Your task to perform on an android device: open app "Walmart Shopping & Grocery" (install if not already installed) and enter user name: "Hans@icloud.com" and password: "executing" Image 0: 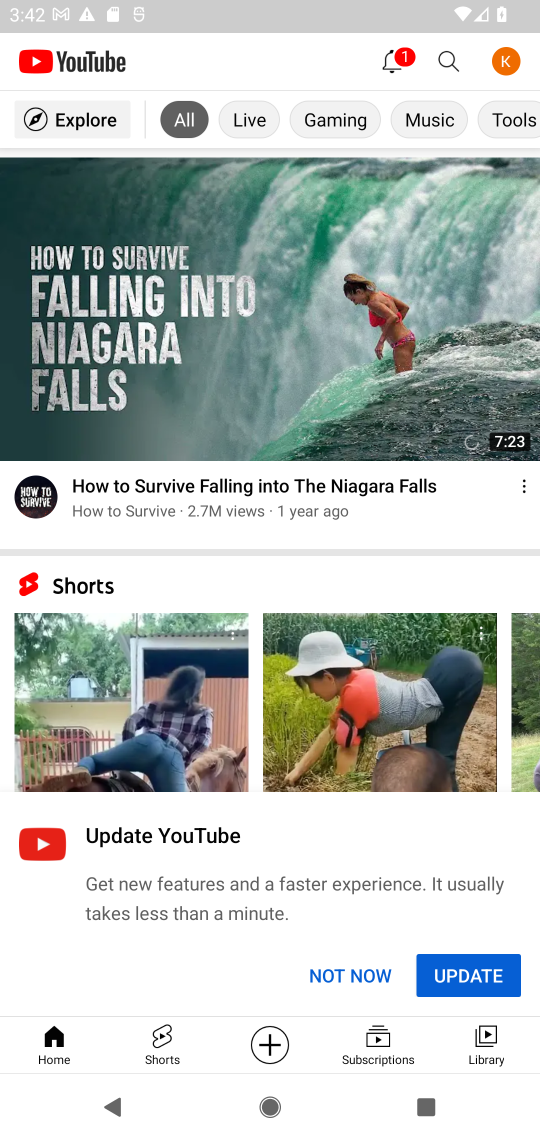
Step 0: press home button
Your task to perform on an android device: open app "Walmart Shopping & Grocery" (install if not already installed) and enter user name: "Hans@icloud.com" and password: "executing" Image 1: 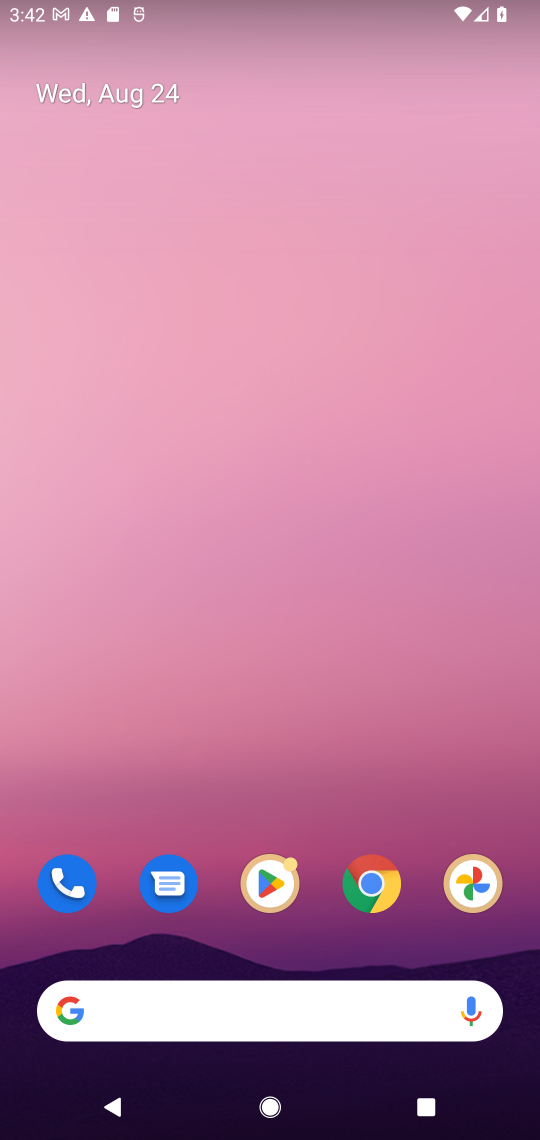
Step 1: drag from (201, 987) to (201, 481)
Your task to perform on an android device: open app "Walmart Shopping & Grocery" (install if not already installed) and enter user name: "Hans@icloud.com" and password: "executing" Image 2: 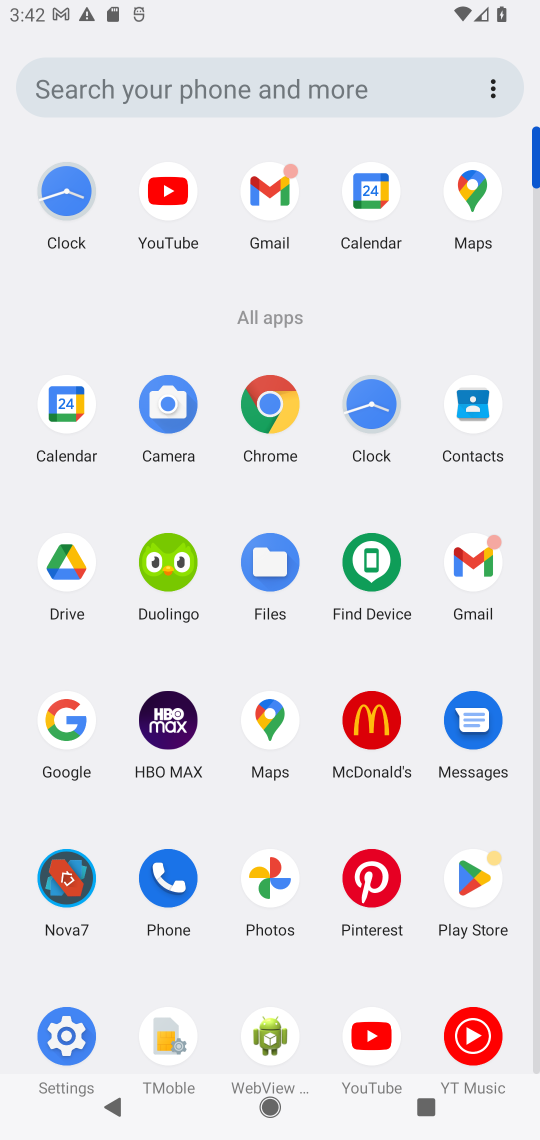
Step 2: click (482, 881)
Your task to perform on an android device: open app "Walmart Shopping & Grocery" (install if not already installed) and enter user name: "Hans@icloud.com" and password: "executing" Image 3: 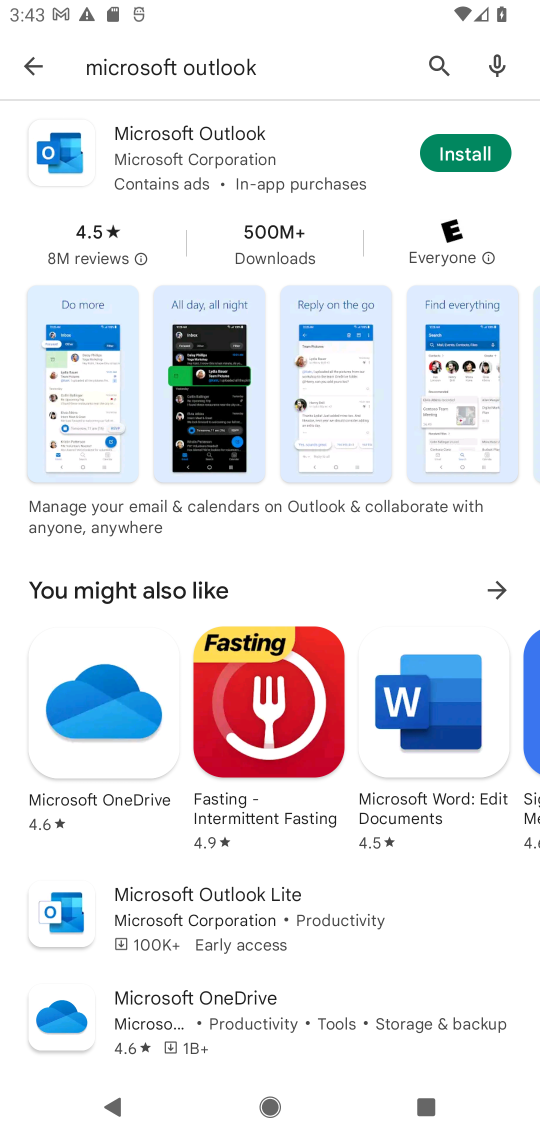
Step 3: click (437, 59)
Your task to perform on an android device: open app "Walmart Shopping & Grocery" (install if not already installed) and enter user name: "Hans@icloud.com" and password: "executing" Image 4: 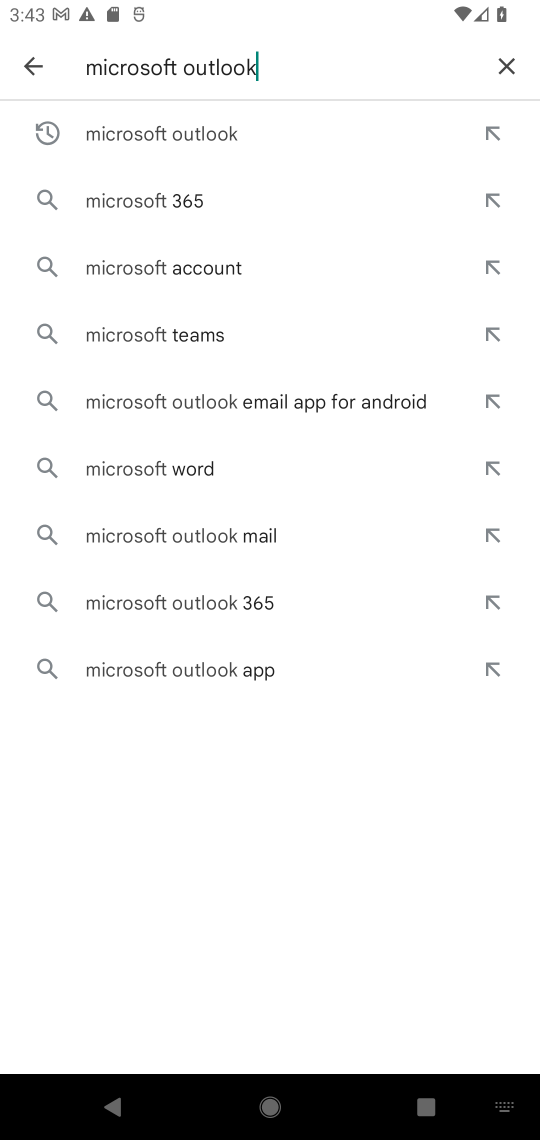
Step 4: click (509, 67)
Your task to perform on an android device: open app "Walmart Shopping & Grocery" (install if not already installed) and enter user name: "Hans@icloud.com" and password: "executing" Image 5: 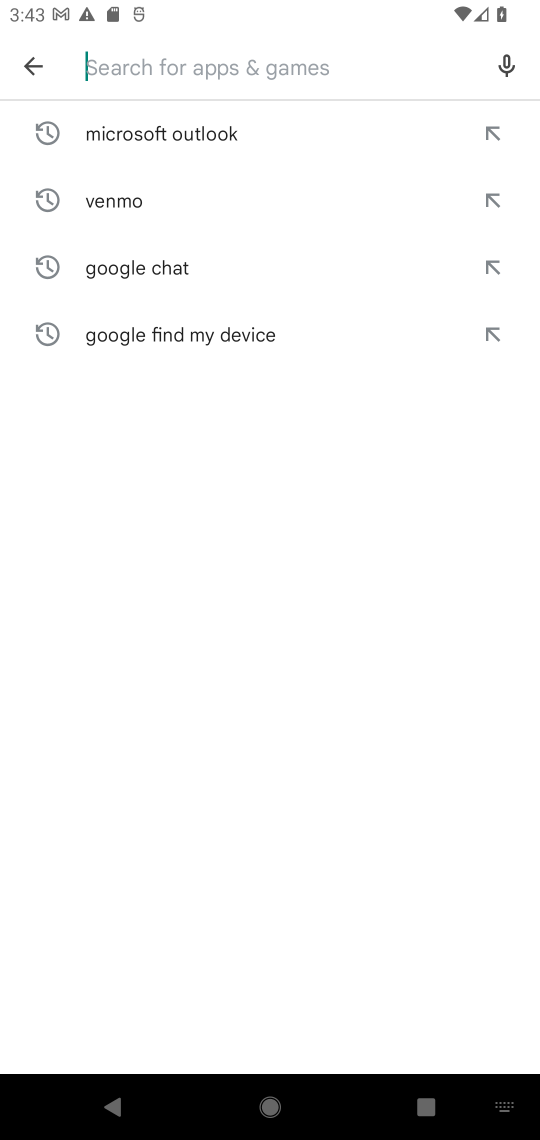
Step 5: type "Walmart Shopping & Grocery"
Your task to perform on an android device: open app "Walmart Shopping & Grocery" (install if not already installed) and enter user name: "Hans@icloud.com" and password: "executing" Image 6: 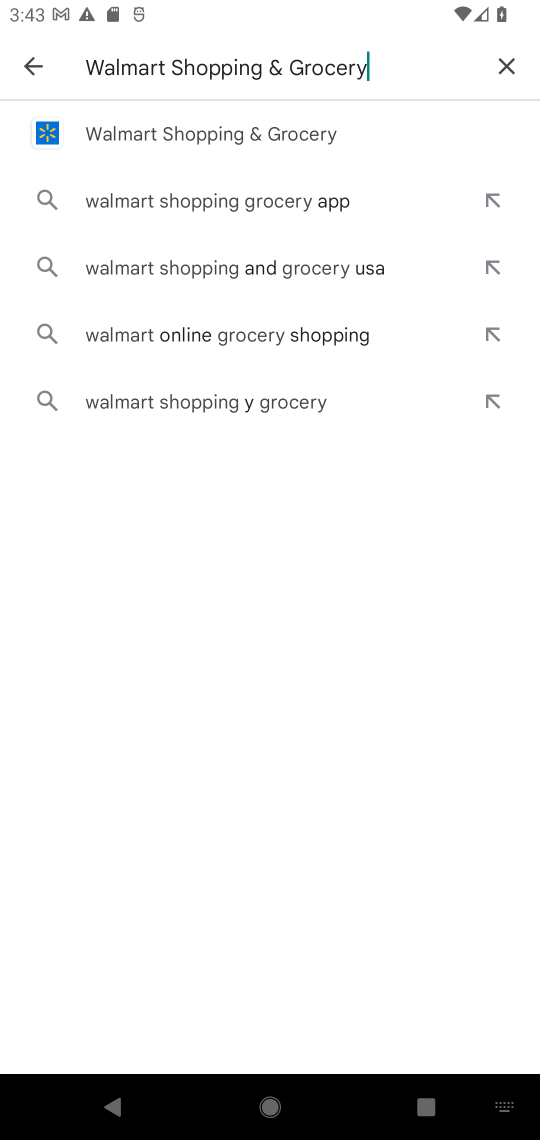
Step 6: click (123, 128)
Your task to perform on an android device: open app "Walmart Shopping & Grocery" (install if not already installed) and enter user name: "Hans@icloud.com" and password: "executing" Image 7: 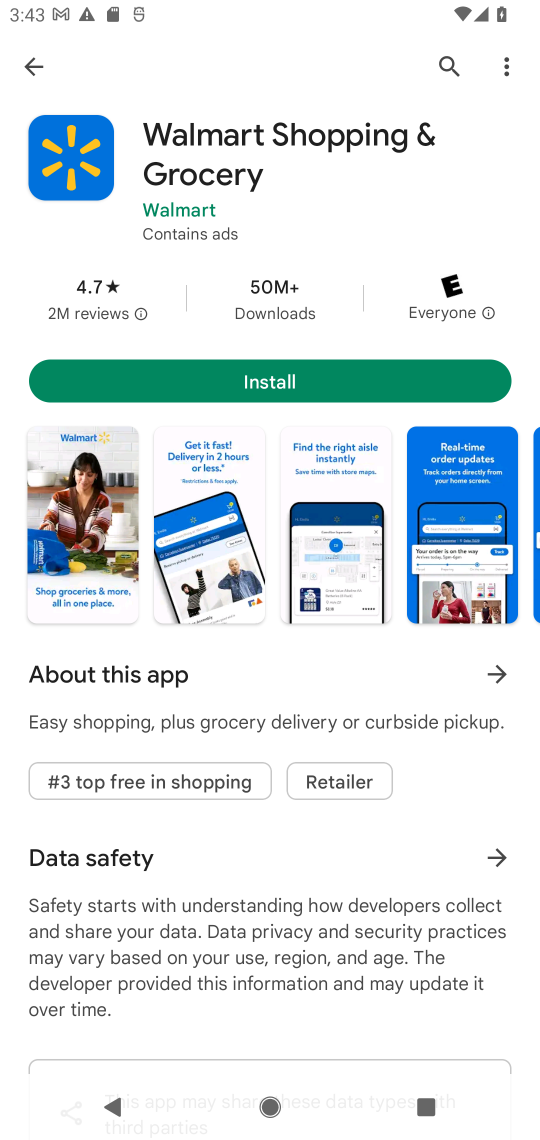
Step 7: click (369, 389)
Your task to perform on an android device: open app "Walmart Shopping & Grocery" (install if not already installed) and enter user name: "Hans@icloud.com" and password: "executing" Image 8: 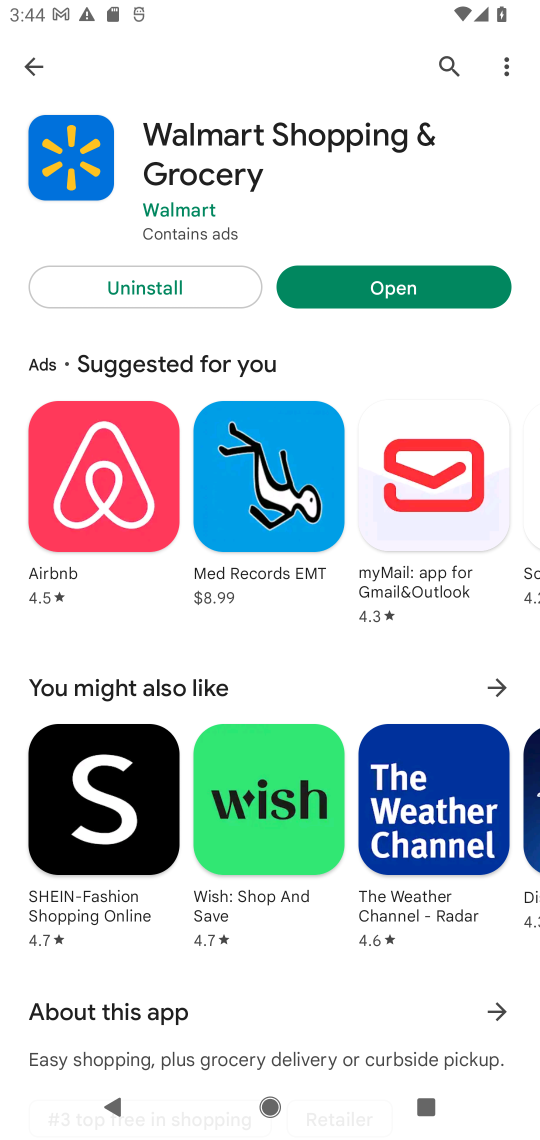
Step 8: click (363, 289)
Your task to perform on an android device: open app "Walmart Shopping & Grocery" (install if not already installed) and enter user name: "Hans@icloud.com" and password: "executing" Image 9: 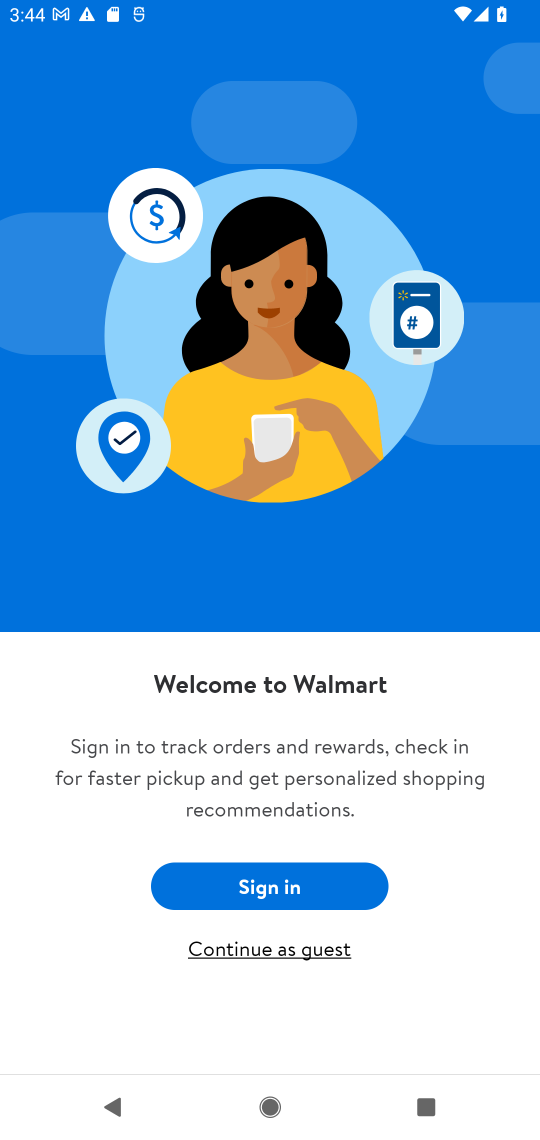
Step 9: task complete